Your task to perform on an android device: move an email to a new category in the gmail app Image 0: 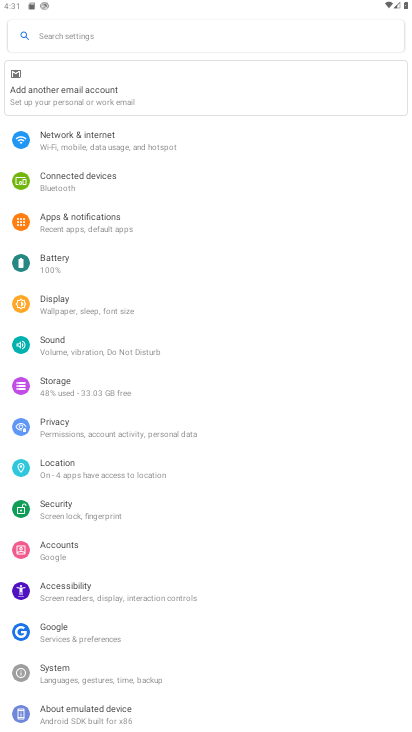
Step 0: press home button
Your task to perform on an android device: move an email to a new category in the gmail app Image 1: 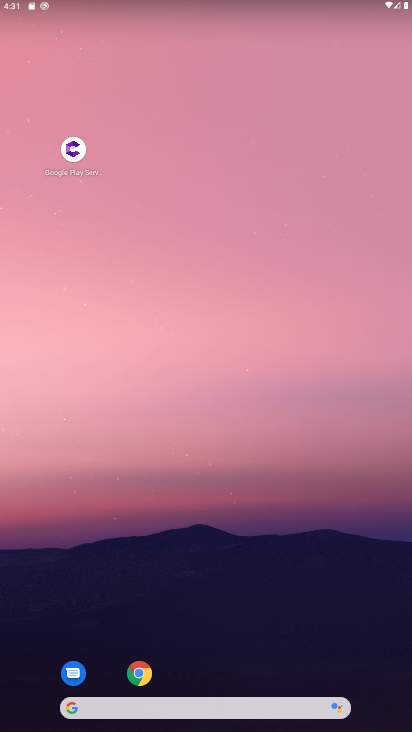
Step 1: drag from (355, 605) to (151, 56)
Your task to perform on an android device: move an email to a new category in the gmail app Image 2: 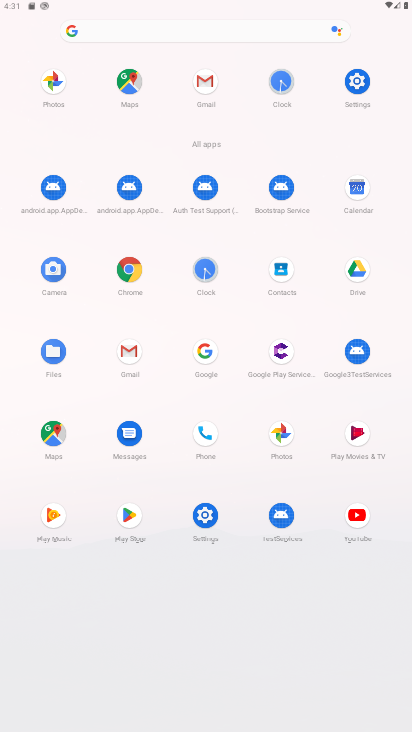
Step 2: click (219, 96)
Your task to perform on an android device: move an email to a new category in the gmail app Image 3: 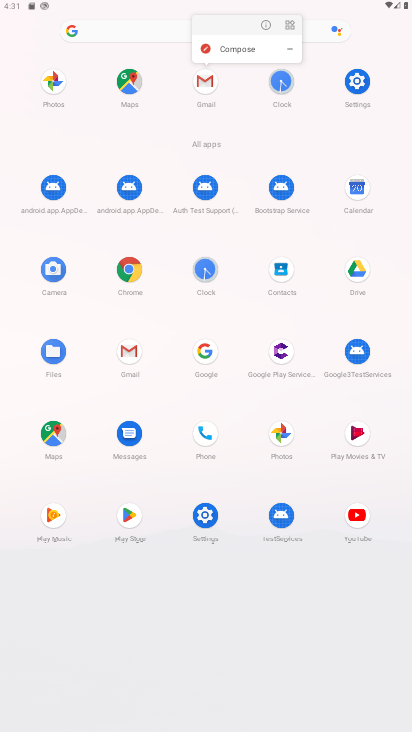
Step 3: click (196, 87)
Your task to perform on an android device: move an email to a new category in the gmail app Image 4: 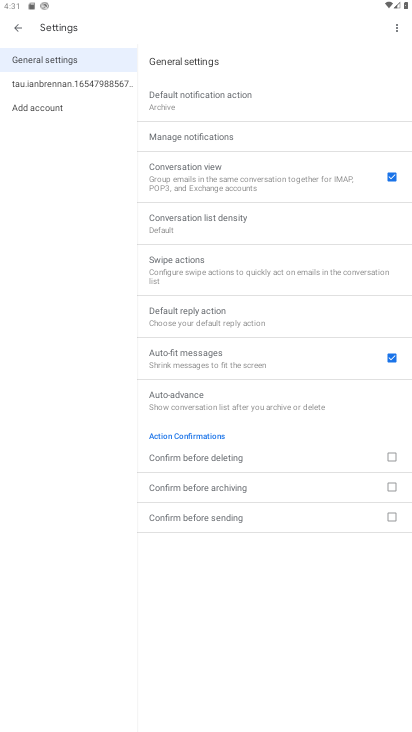
Step 4: click (15, 26)
Your task to perform on an android device: move an email to a new category in the gmail app Image 5: 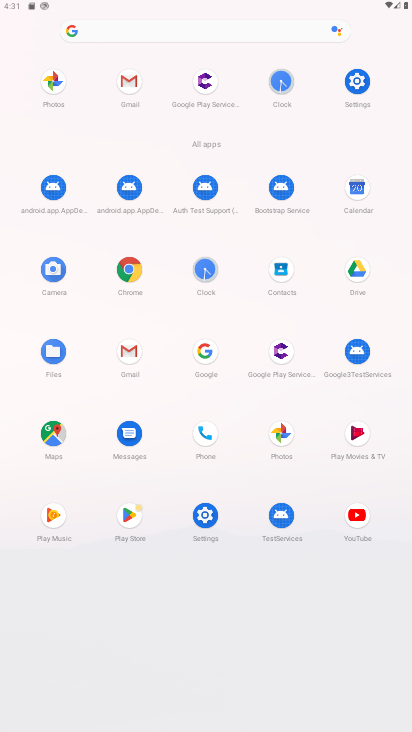
Step 5: click (128, 354)
Your task to perform on an android device: move an email to a new category in the gmail app Image 6: 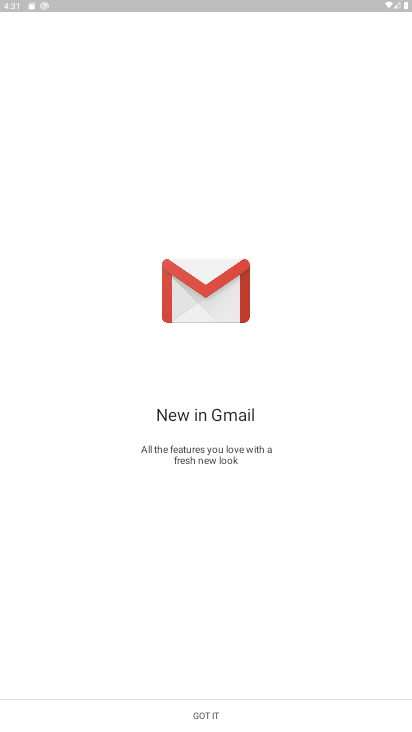
Step 6: click (215, 713)
Your task to perform on an android device: move an email to a new category in the gmail app Image 7: 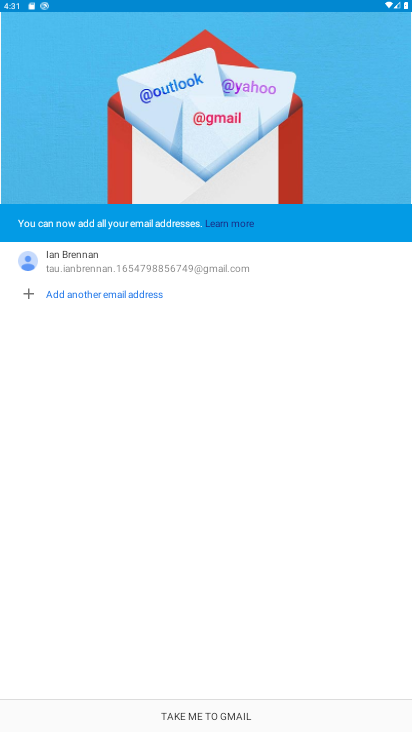
Step 7: click (189, 718)
Your task to perform on an android device: move an email to a new category in the gmail app Image 8: 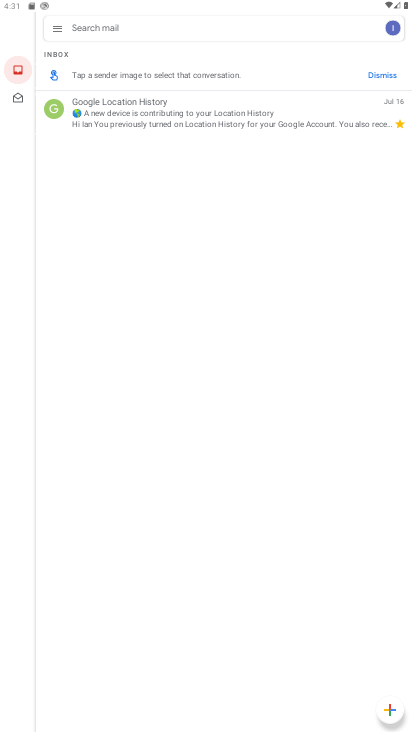
Step 8: click (298, 114)
Your task to perform on an android device: move an email to a new category in the gmail app Image 9: 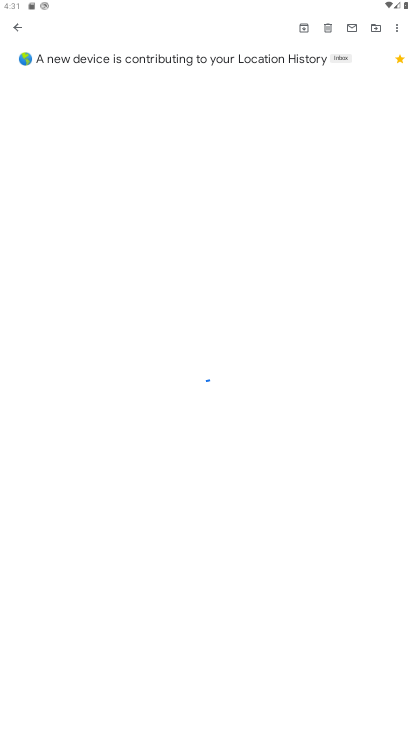
Step 9: click (394, 63)
Your task to perform on an android device: move an email to a new category in the gmail app Image 10: 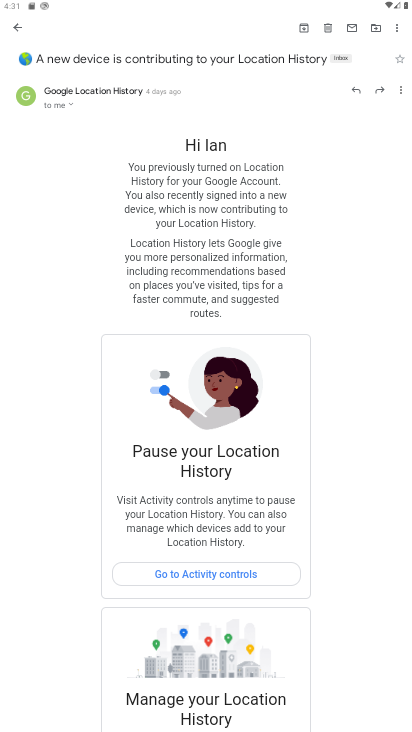
Step 10: task complete